Your task to perform on an android device: Open settings on Google Maps Image 0: 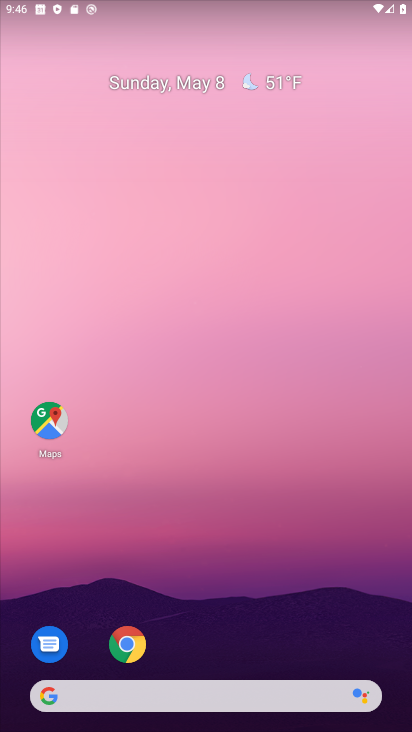
Step 0: drag from (198, 660) to (249, 284)
Your task to perform on an android device: Open settings on Google Maps Image 1: 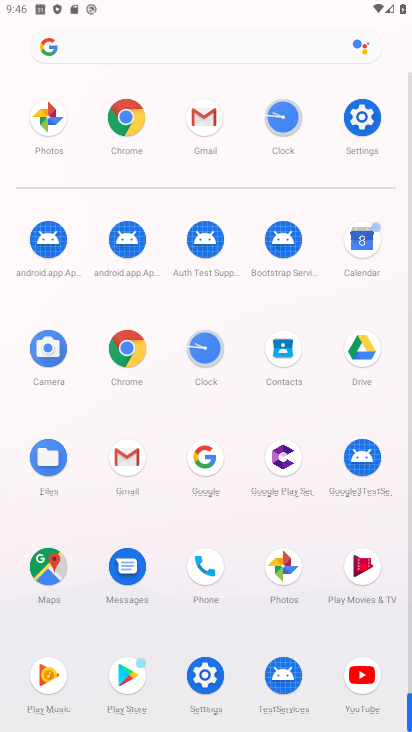
Step 1: click (50, 554)
Your task to perform on an android device: Open settings on Google Maps Image 2: 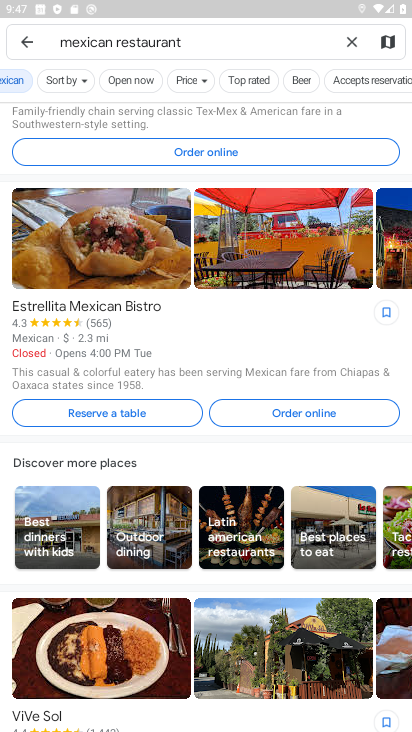
Step 2: drag from (184, 576) to (258, 262)
Your task to perform on an android device: Open settings on Google Maps Image 3: 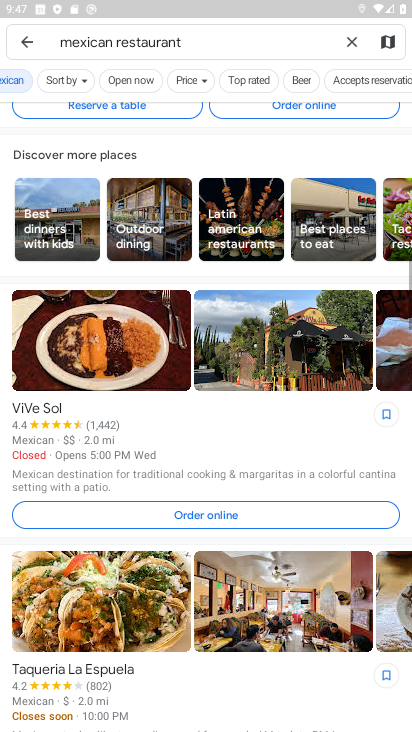
Step 3: click (33, 40)
Your task to perform on an android device: Open settings on Google Maps Image 4: 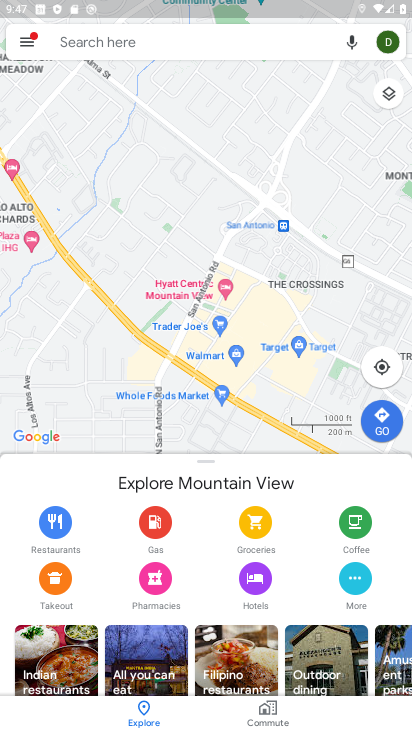
Step 4: click (25, 41)
Your task to perform on an android device: Open settings on Google Maps Image 5: 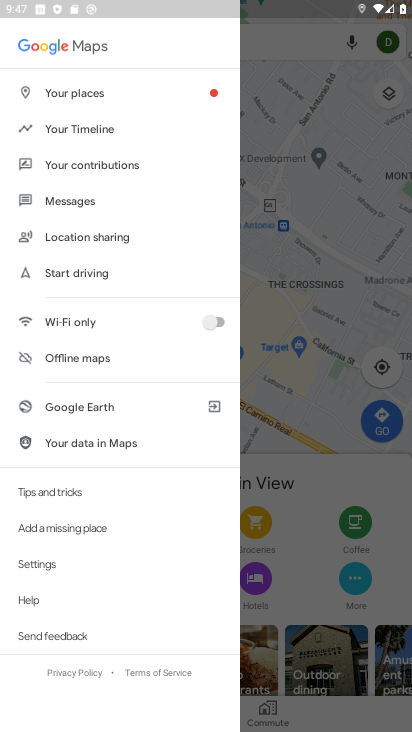
Step 5: drag from (110, 509) to (129, 198)
Your task to perform on an android device: Open settings on Google Maps Image 6: 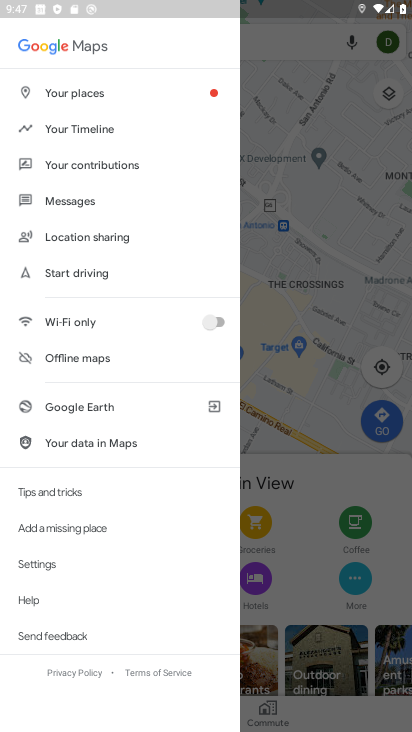
Step 6: drag from (104, 122) to (154, 551)
Your task to perform on an android device: Open settings on Google Maps Image 7: 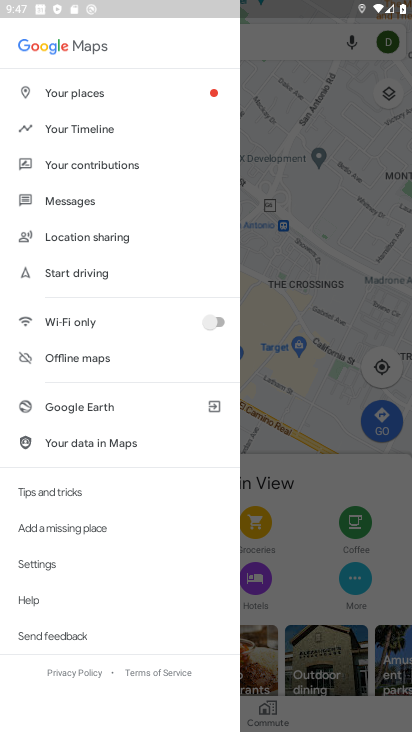
Step 7: click (77, 557)
Your task to perform on an android device: Open settings on Google Maps Image 8: 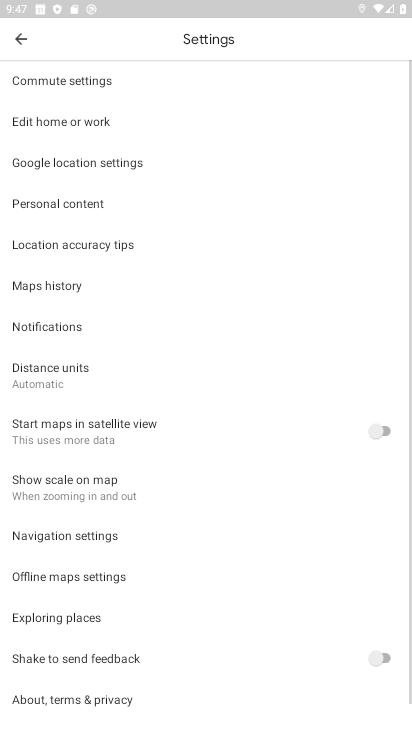
Step 8: task complete